Your task to perform on an android device: Open CNN.com Image 0: 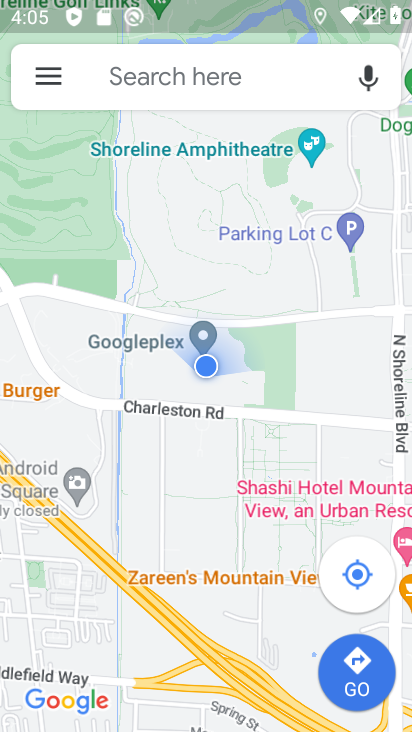
Step 0: press home button
Your task to perform on an android device: Open CNN.com Image 1: 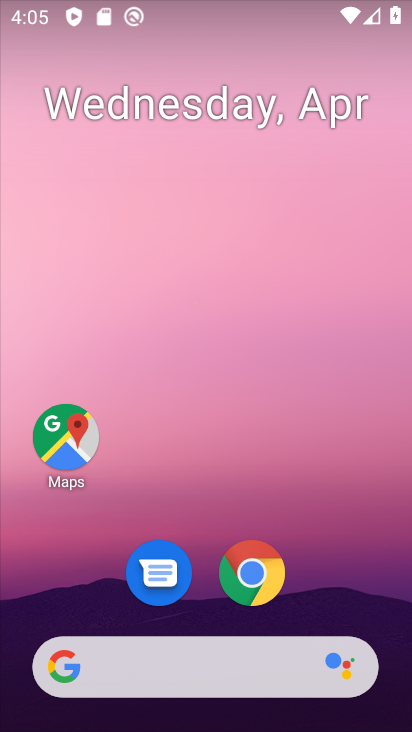
Step 1: click (241, 596)
Your task to perform on an android device: Open CNN.com Image 2: 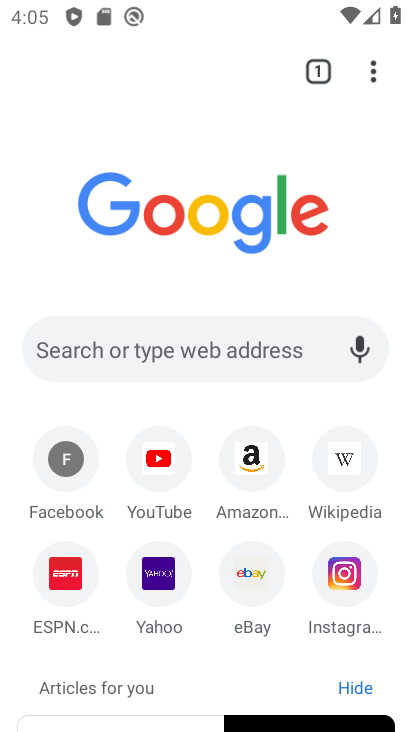
Step 2: click (166, 359)
Your task to perform on an android device: Open CNN.com Image 3: 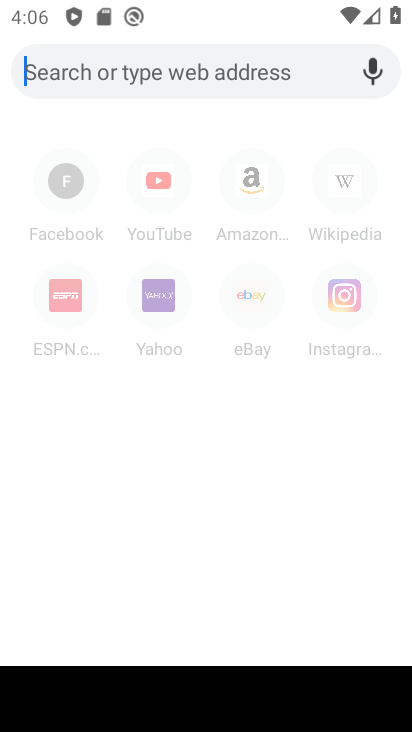
Step 3: type "cnn.com"
Your task to perform on an android device: Open CNN.com Image 4: 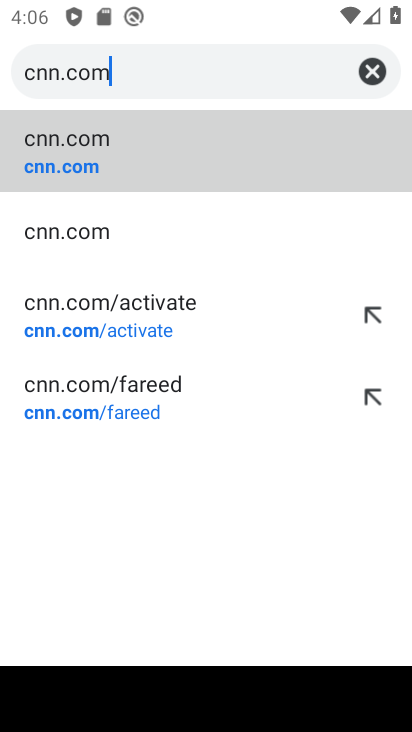
Step 4: click (81, 166)
Your task to perform on an android device: Open CNN.com Image 5: 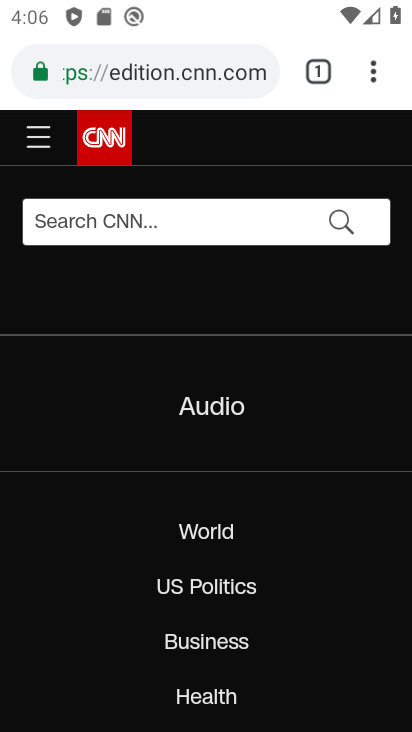
Step 5: task complete